Your task to perform on an android device: check data usage Image 0: 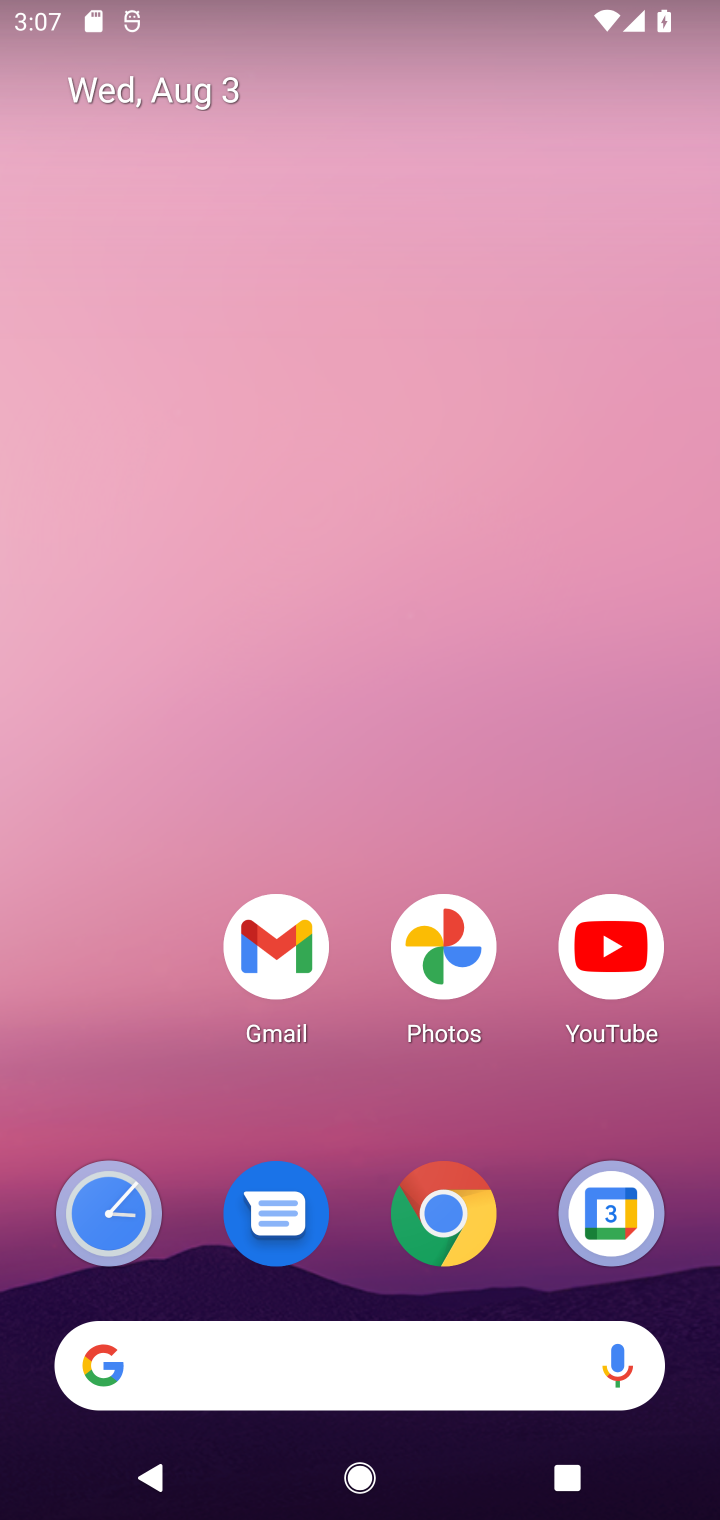
Step 0: drag from (352, 1304) to (410, 297)
Your task to perform on an android device: check data usage Image 1: 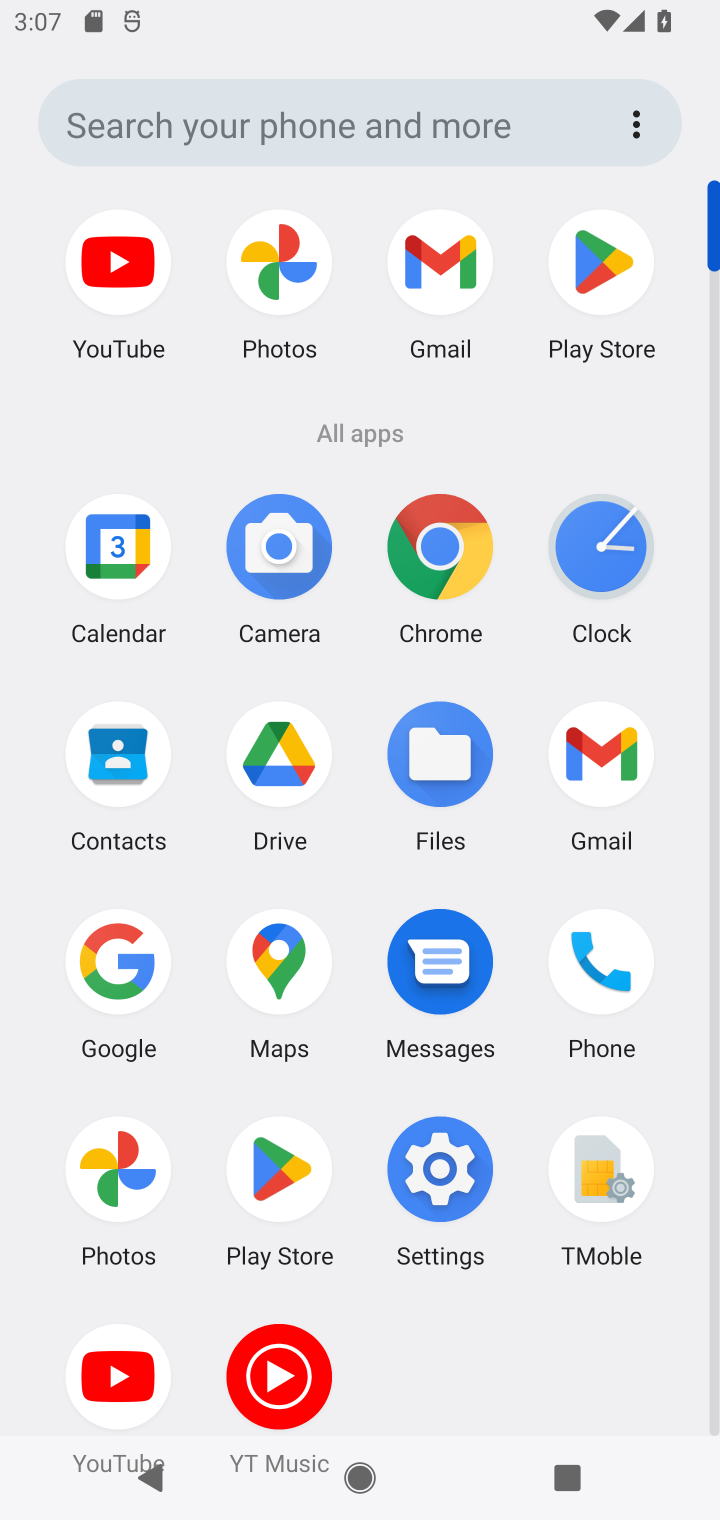
Step 1: click (435, 1193)
Your task to perform on an android device: check data usage Image 2: 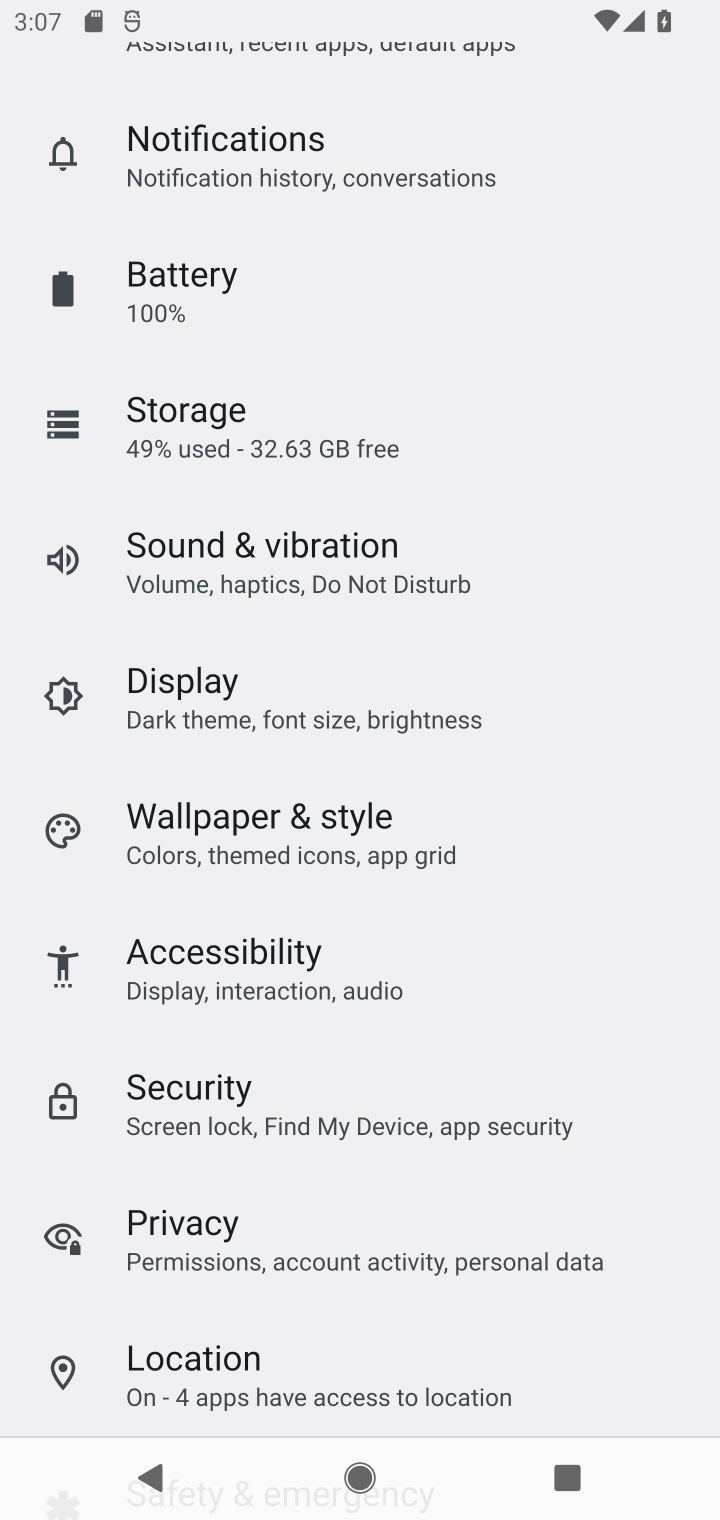
Step 2: drag from (355, 368) to (410, 1269)
Your task to perform on an android device: check data usage Image 3: 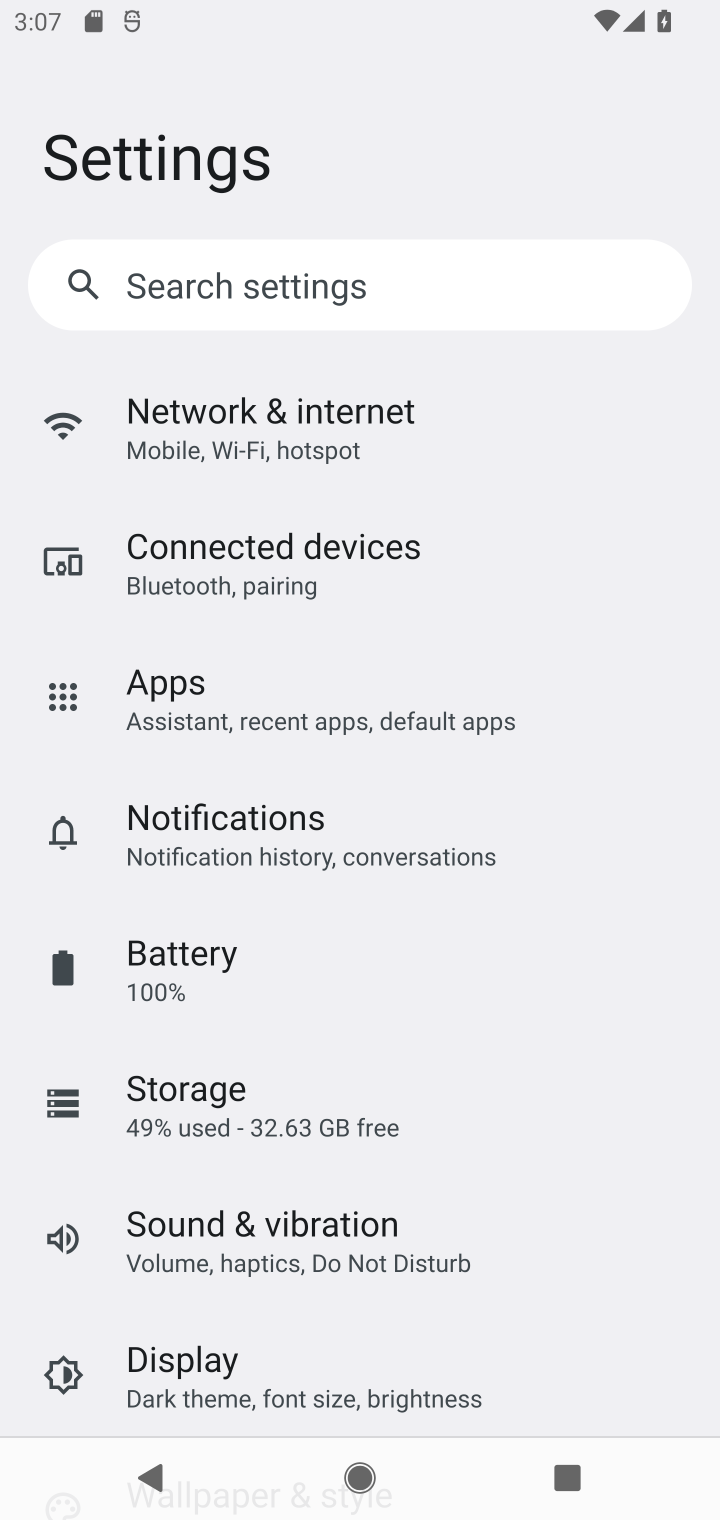
Step 3: click (213, 435)
Your task to perform on an android device: check data usage Image 4: 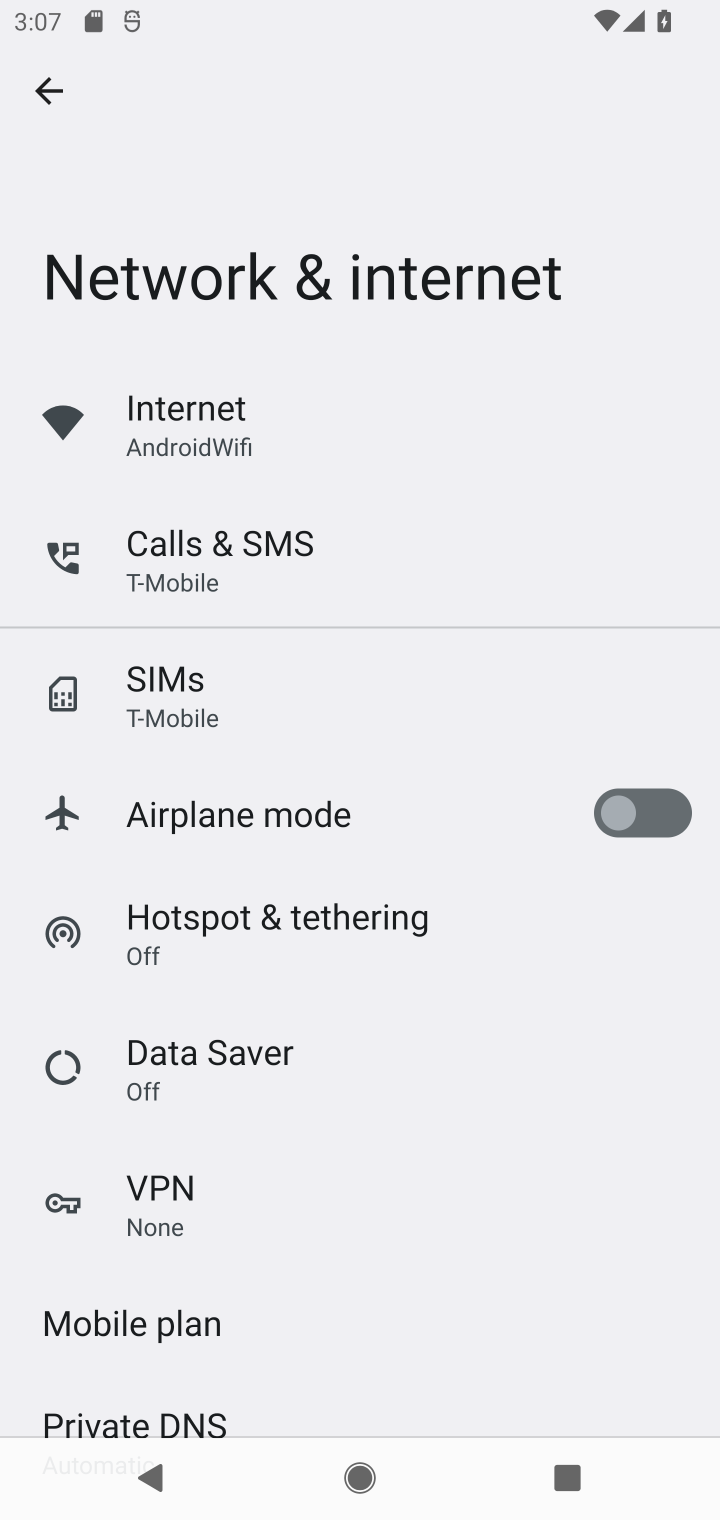
Step 4: drag from (329, 1070) to (584, 227)
Your task to perform on an android device: check data usage Image 5: 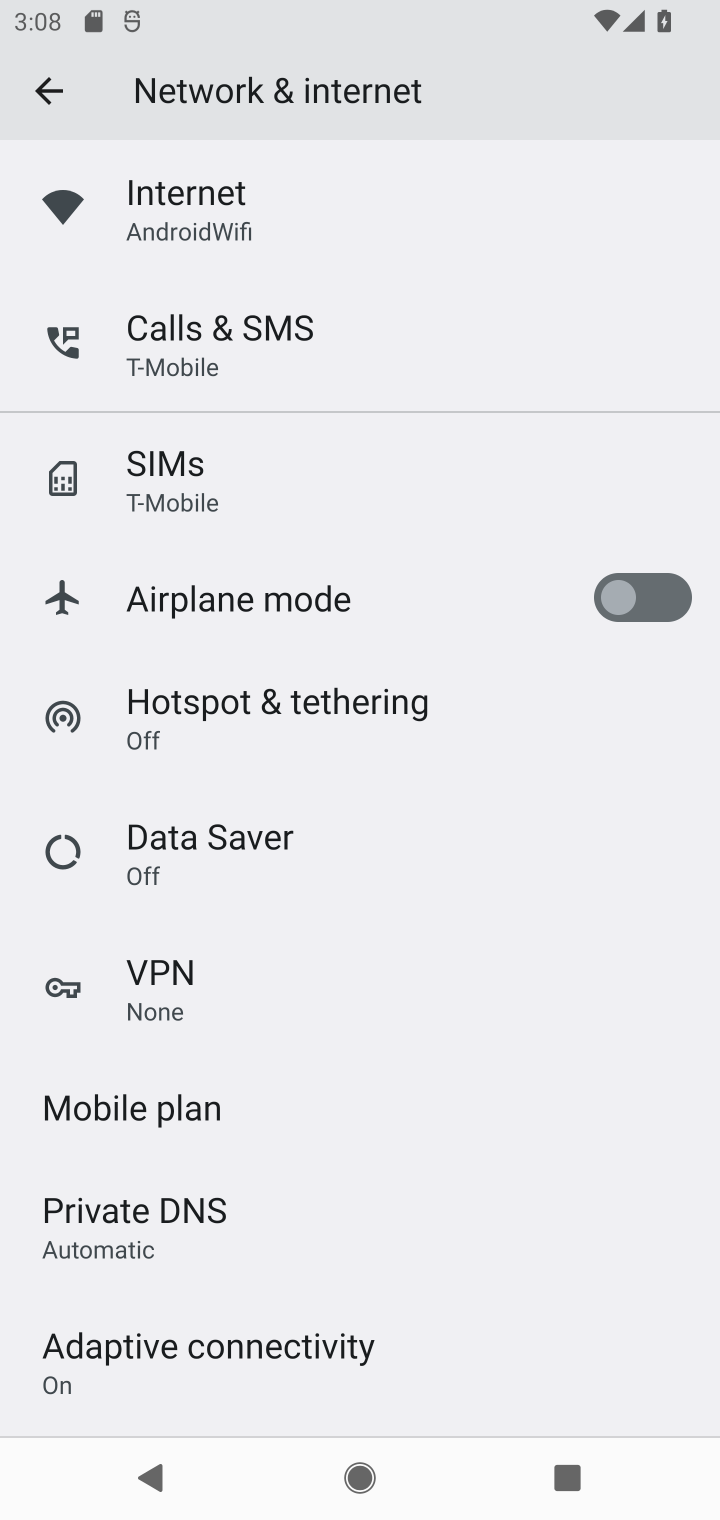
Step 5: drag from (346, 434) to (259, 1317)
Your task to perform on an android device: check data usage Image 6: 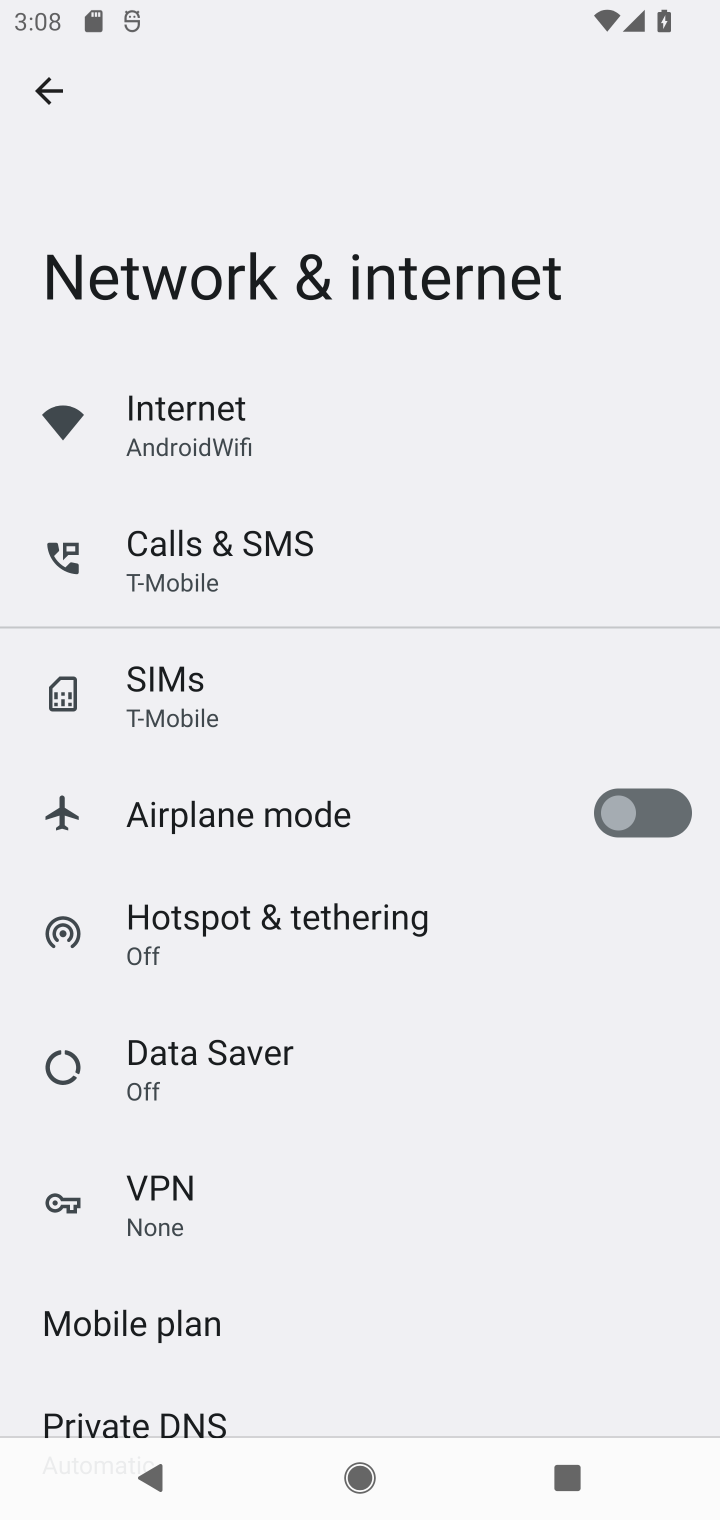
Step 6: click (158, 657)
Your task to perform on an android device: check data usage Image 7: 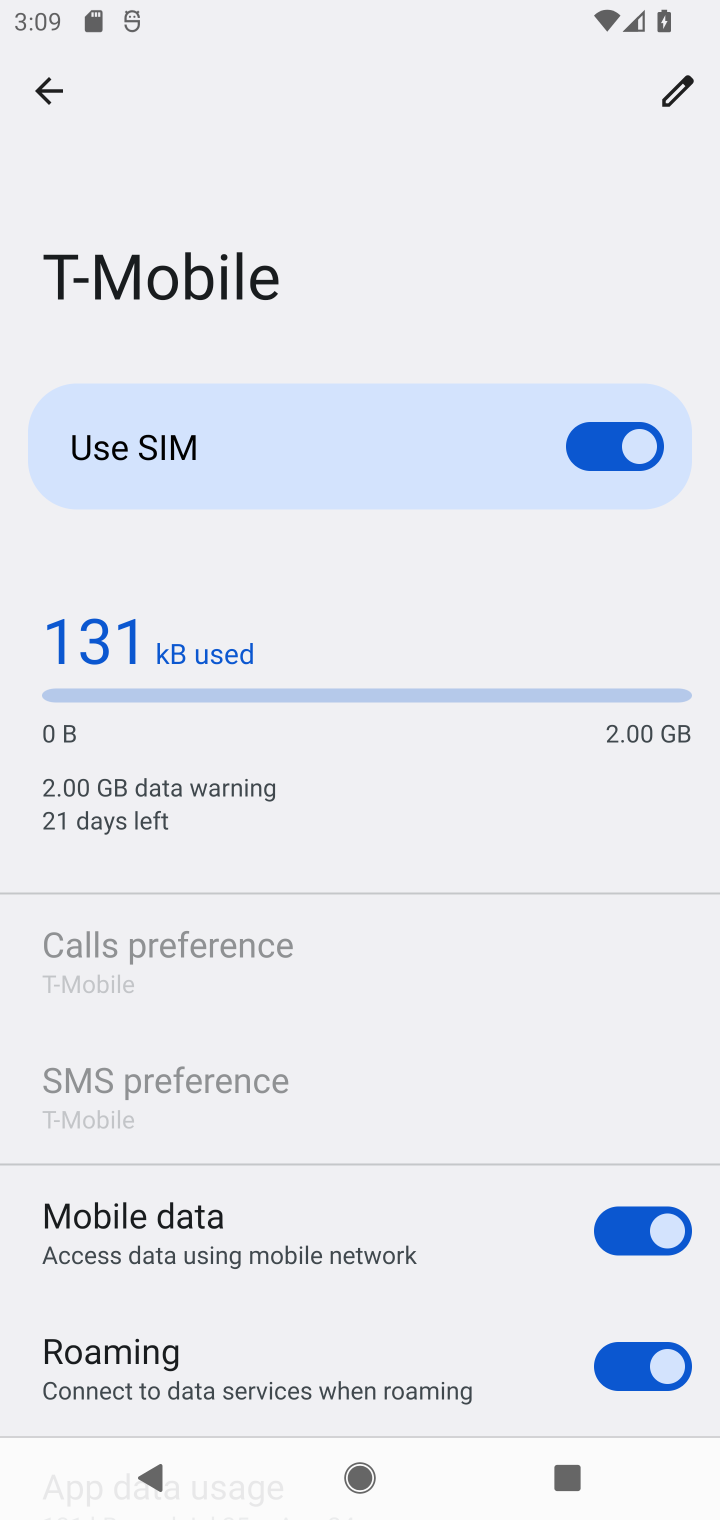
Step 7: task complete